Your task to perform on an android device: Go to display settings Image 0: 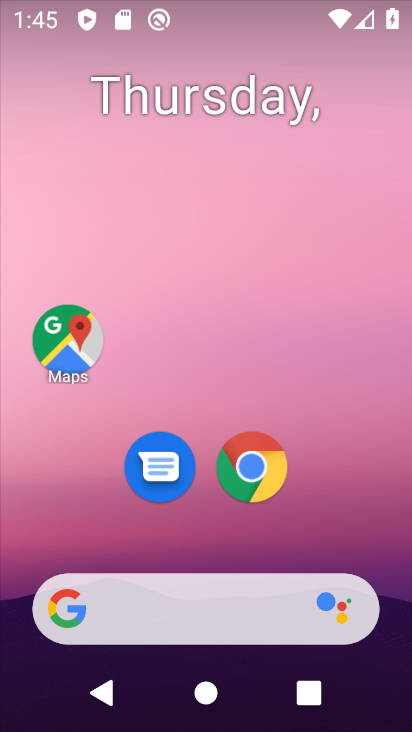
Step 0: drag from (351, 517) to (321, 188)
Your task to perform on an android device: Go to display settings Image 1: 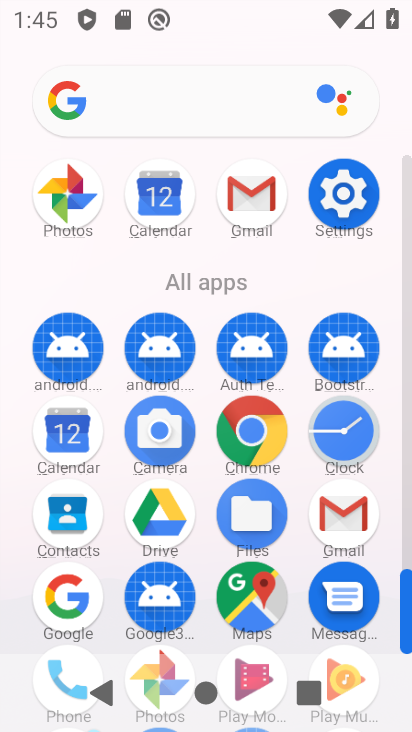
Step 1: click (353, 195)
Your task to perform on an android device: Go to display settings Image 2: 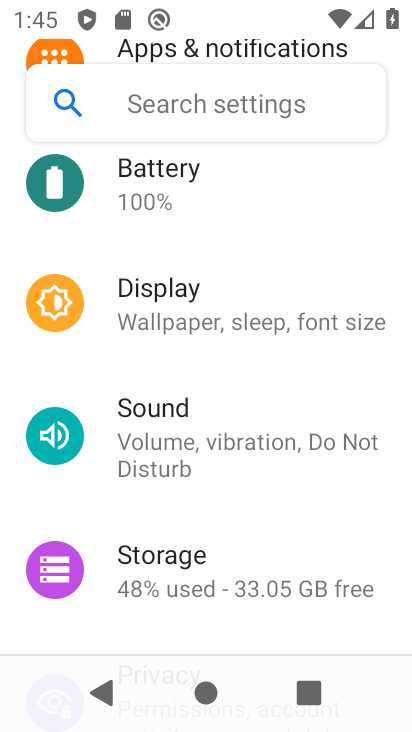
Step 2: click (174, 294)
Your task to perform on an android device: Go to display settings Image 3: 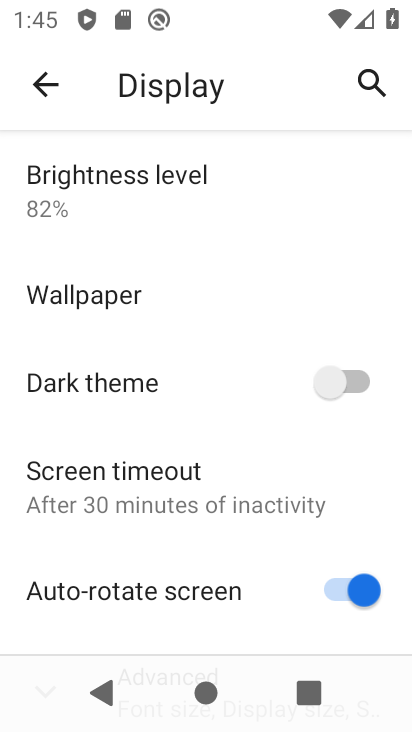
Step 3: task complete